Your task to perform on an android device: toggle translation in the chrome app Image 0: 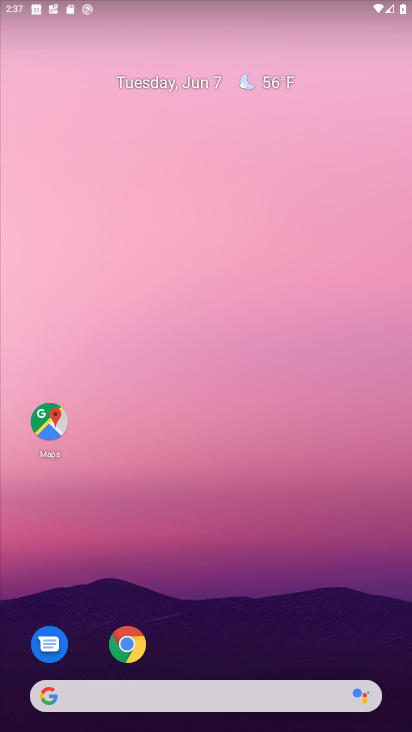
Step 0: click (127, 645)
Your task to perform on an android device: toggle translation in the chrome app Image 1: 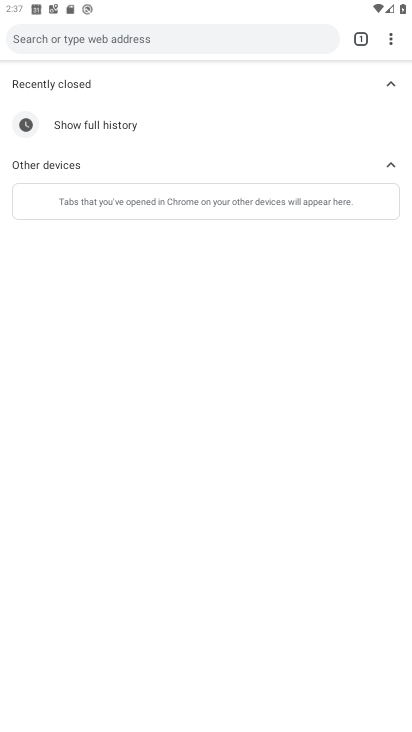
Step 1: click (393, 36)
Your task to perform on an android device: toggle translation in the chrome app Image 2: 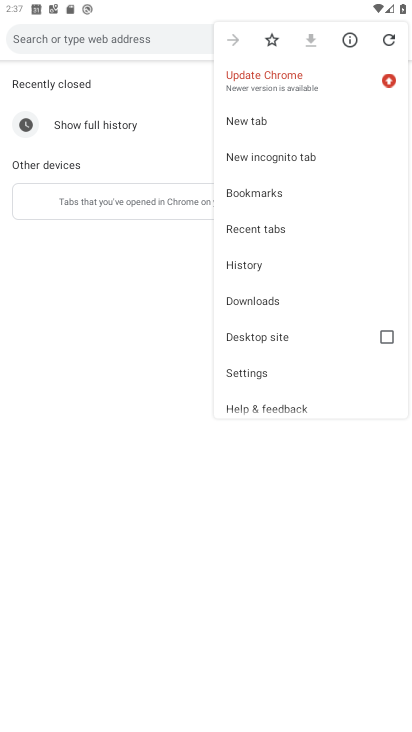
Step 2: click (276, 372)
Your task to perform on an android device: toggle translation in the chrome app Image 3: 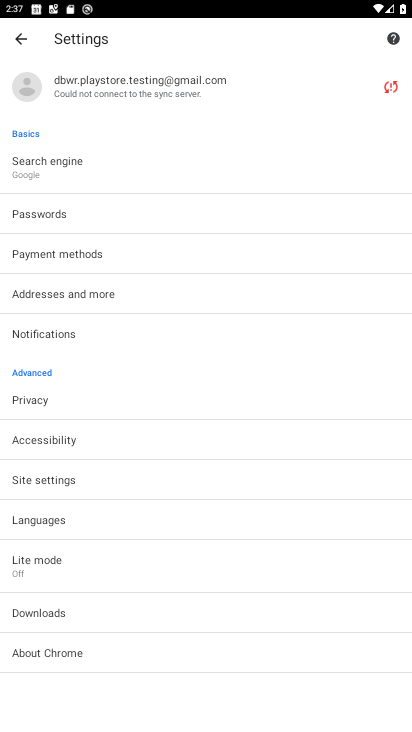
Step 3: click (73, 517)
Your task to perform on an android device: toggle translation in the chrome app Image 4: 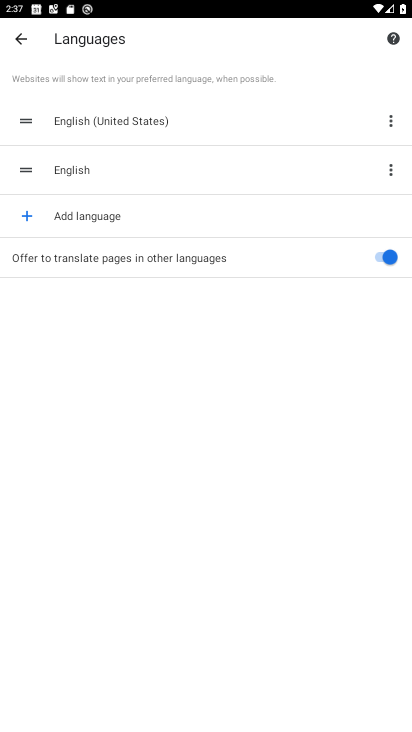
Step 4: click (382, 249)
Your task to perform on an android device: toggle translation in the chrome app Image 5: 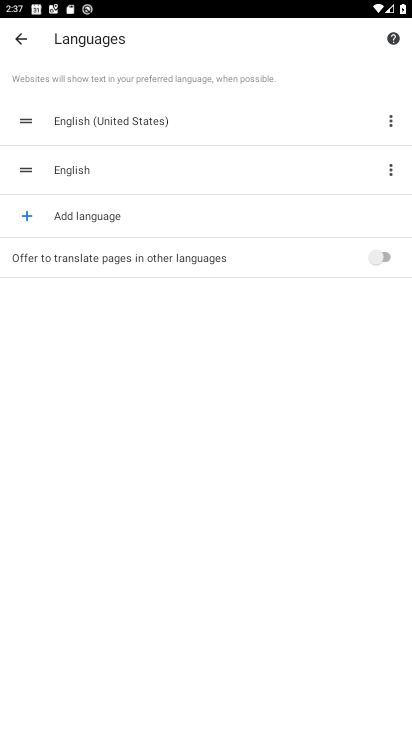
Step 5: task complete